Your task to perform on an android device: Open the calendar and show me this week's events Image 0: 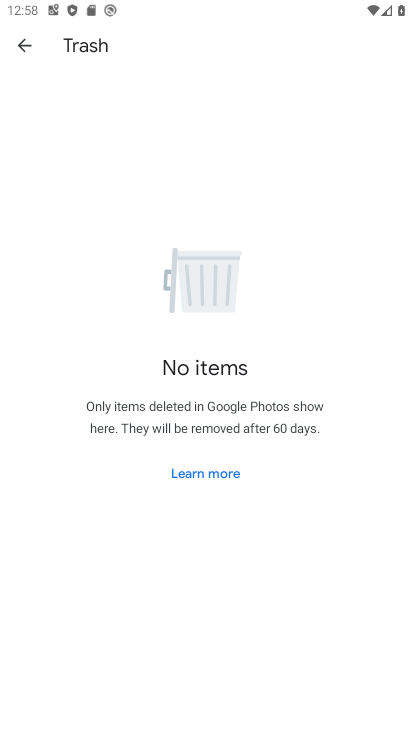
Step 0: press home button
Your task to perform on an android device: Open the calendar and show me this week's events Image 1: 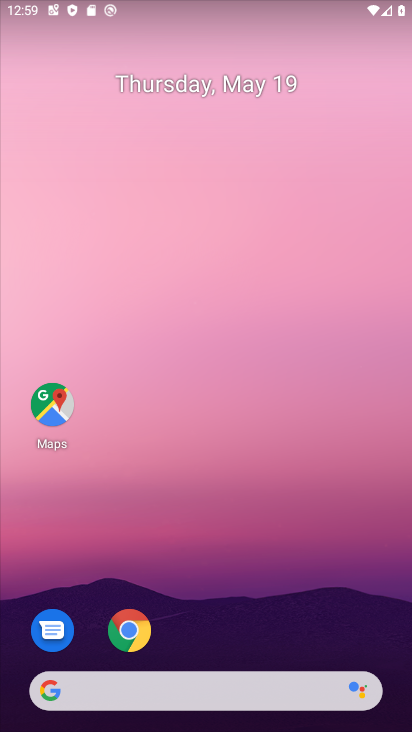
Step 1: drag from (239, 652) to (179, 54)
Your task to perform on an android device: Open the calendar and show me this week's events Image 2: 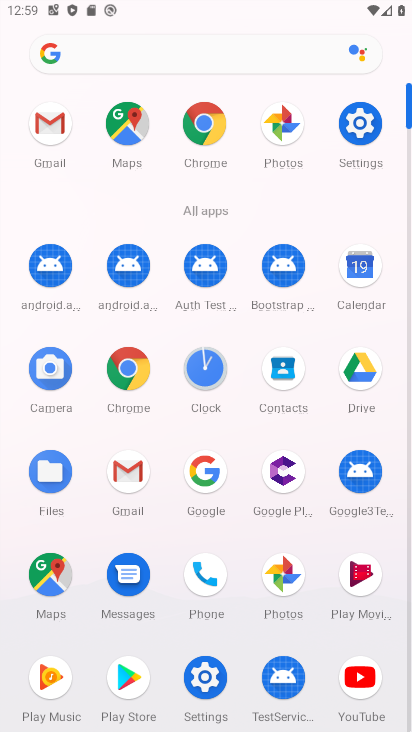
Step 2: click (356, 276)
Your task to perform on an android device: Open the calendar and show me this week's events Image 3: 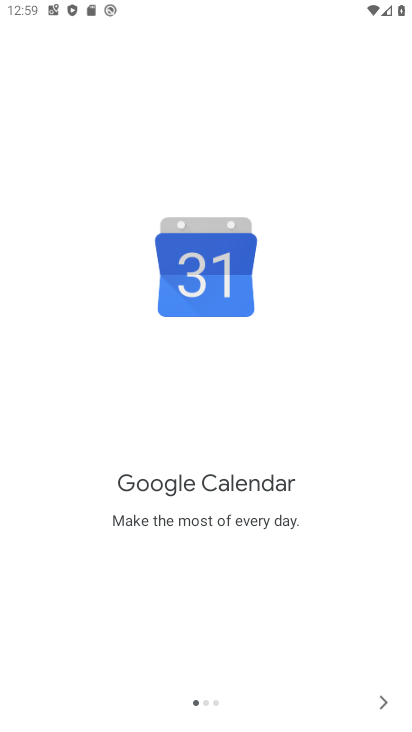
Step 3: click (377, 695)
Your task to perform on an android device: Open the calendar and show me this week's events Image 4: 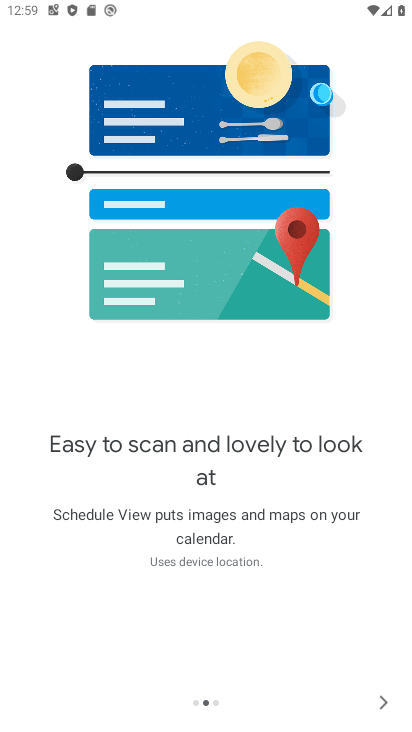
Step 4: click (377, 695)
Your task to perform on an android device: Open the calendar and show me this week's events Image 5: 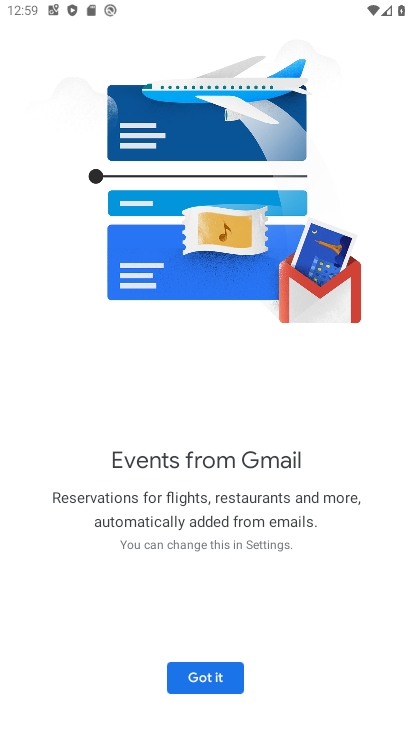
Step 5: click (218, 681)
Your task to perform on an android device: Open the calendar and show me this week's events Image 6: 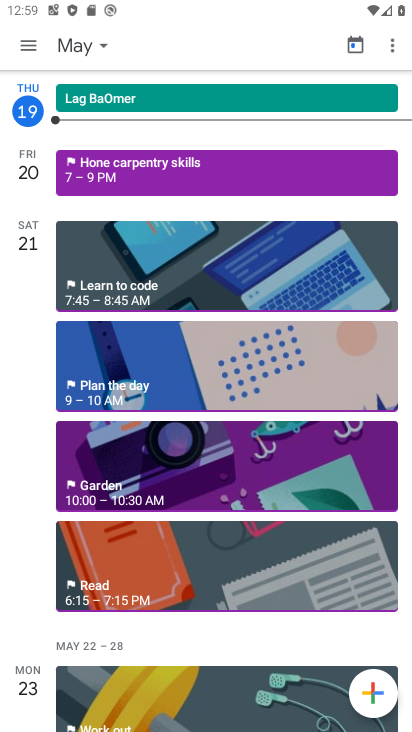
Step 6: click (25, 43)
Your task to perform on an android device: Open the calendar and show me this week's events Image 7: 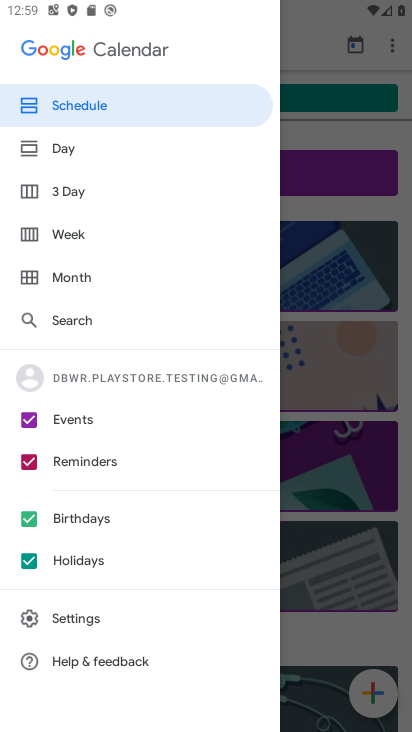
Step 7: click (78, 241)
Your task to perform on an android device: Open the calendar and show me this week's events Image 8: 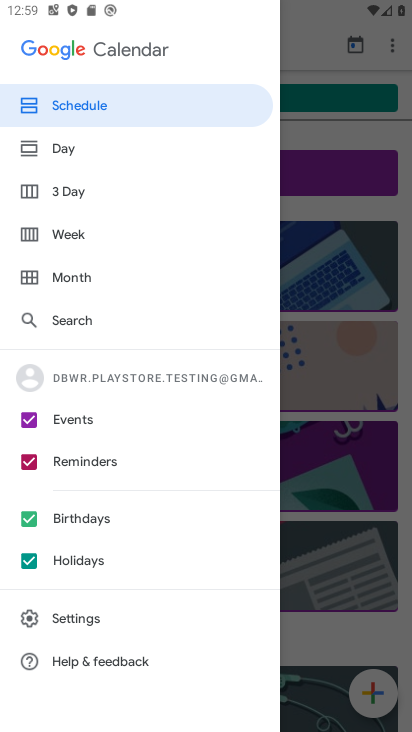
Step 8: click (78, 222)
Your task to perform on an android device: Open the calendar and show me this week's events Image 9: 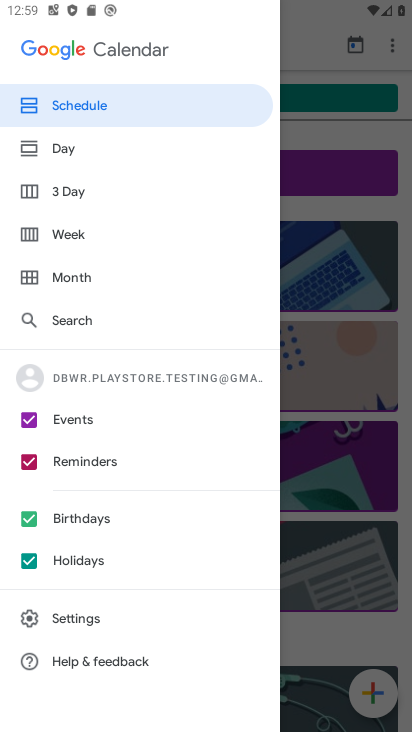
Step 9: click (40, 230)
Your task to perform on an android device: Open the calendar and show me this week's events Image 10: 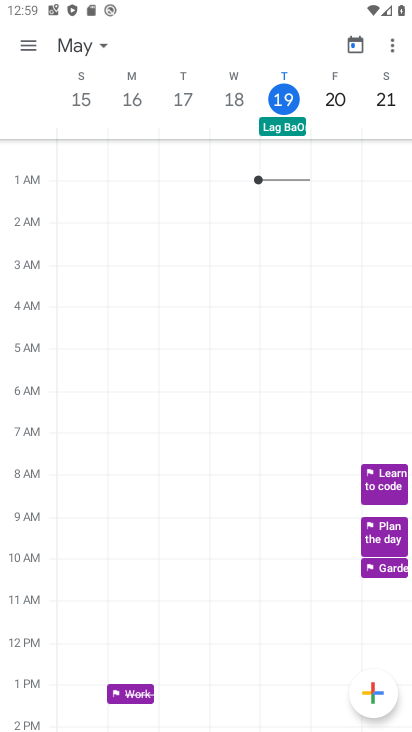
Step 10: task complete